Your task to perform on an android device: Show me popular games on the Play Store Image 0: 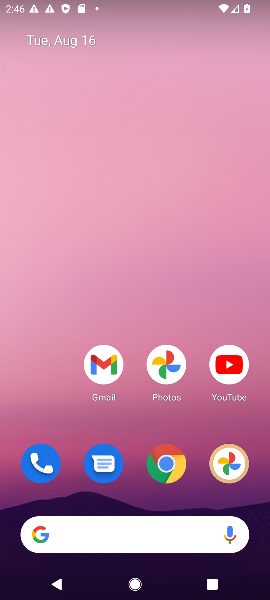
Step 0: drag from (168, 514) to (87, 22)
Your task to perform on an android device: Show me popular games on the Play Store Image 1: 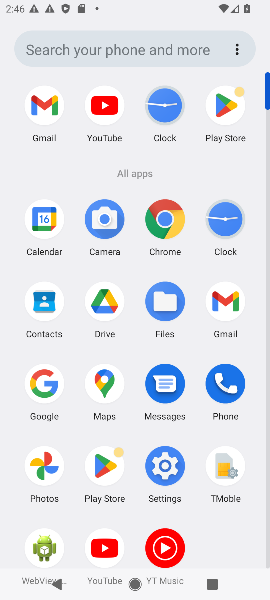
Step 1: click (97, 488)
Your task to perform on an android device: Show me popular games on the Play Store Image 2: 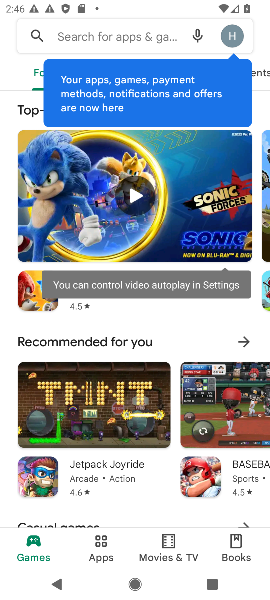
Step 2: task complete